Your task to perform on an android device: Open calendar and show me the second week of next month Image 0: 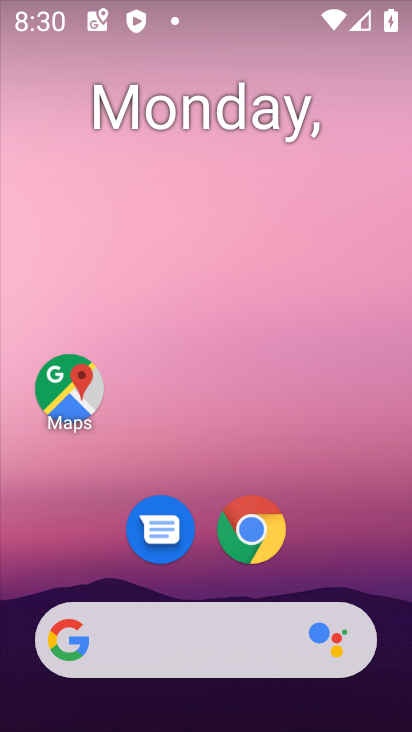
Step 0: drag from (54, 590) to (268, 181)
Your task to perform on an android device: Open calendar and show me the second week of next month Image 1: 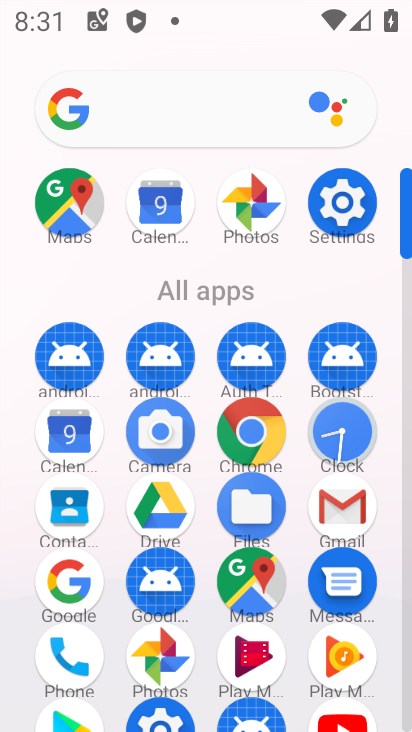
Step 1: click (65, 445)
Your task to perform on an android device: Open calendar and show me the second week of next month Image 2: 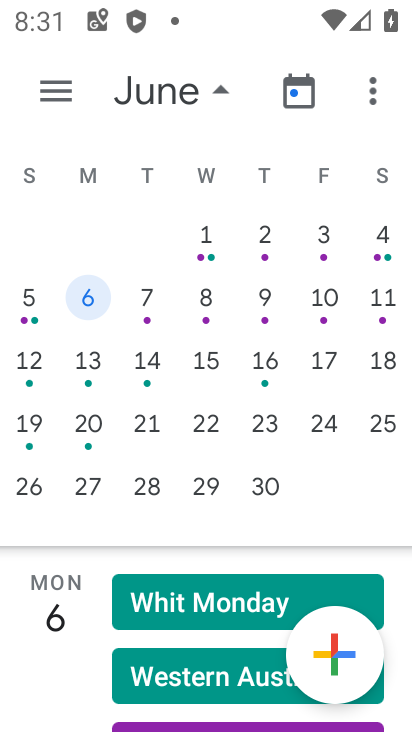
Step 2: click (148, 293)
Your task to perform on an android device: Open calendar and show me the second week of next month Image 3: 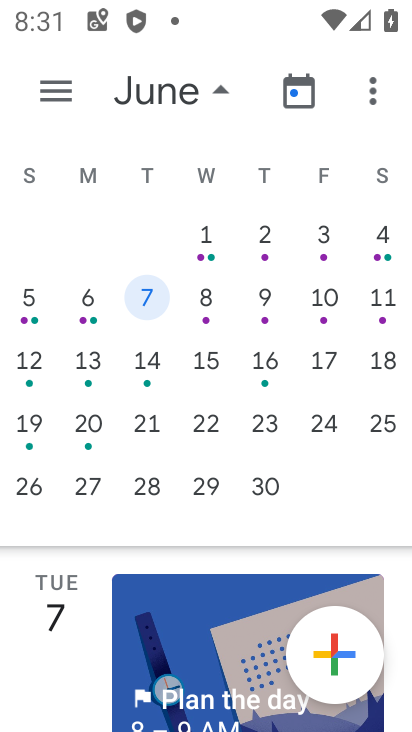
Step 3: click (206, 291)
Your task to perform on an android device: Open calendar and show me the second week of next month Image 4: 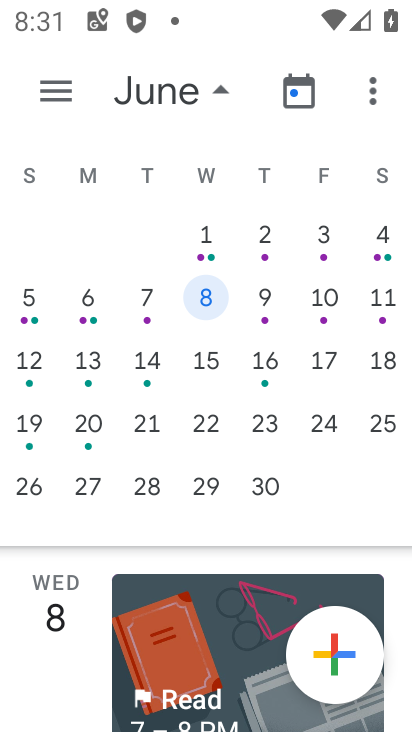
Step 4: click (256, 300)
Your task to perform on an android device: Open calendar and show me the second week of next month Image 5: 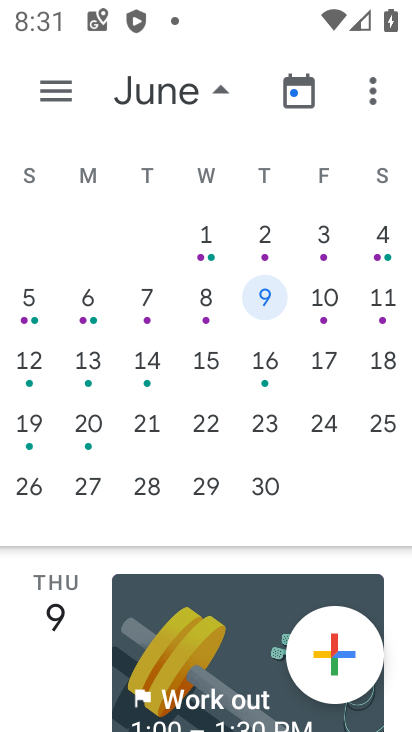
Step 5: click (344, 297)
Your task to perform on an android device: Open calendar and show me the second week of next month Image 6: 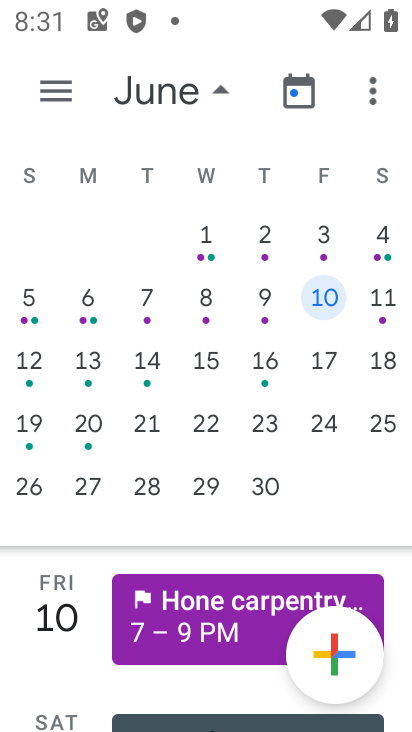
Step 6: click (398, 299)
Your task to perform on an android device: Open calendar and show me the second week of next month Image 7: 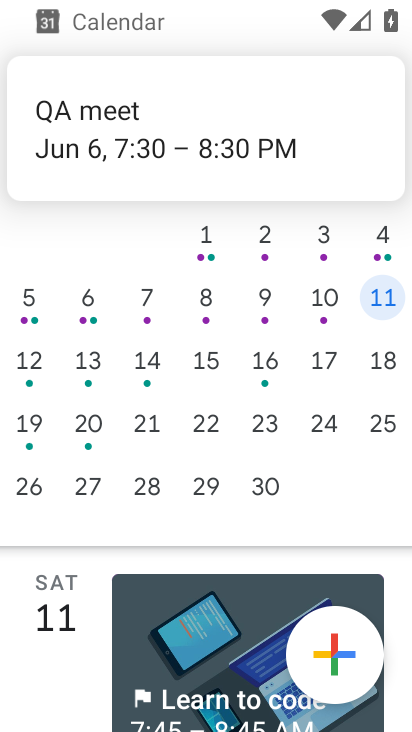
Step 7: task complete